Your task to perform on an android device: Go to privacy settings Image 0: 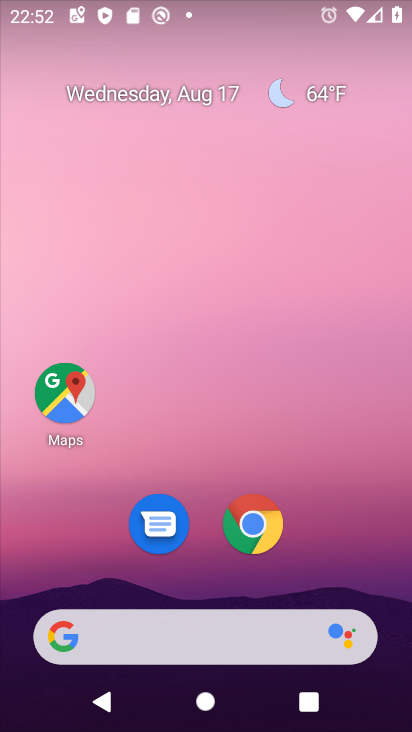
Step 0: drag from (319, 535) to (306, 8)
Your task to perform on an android device: Go to privacy settings Image 1: 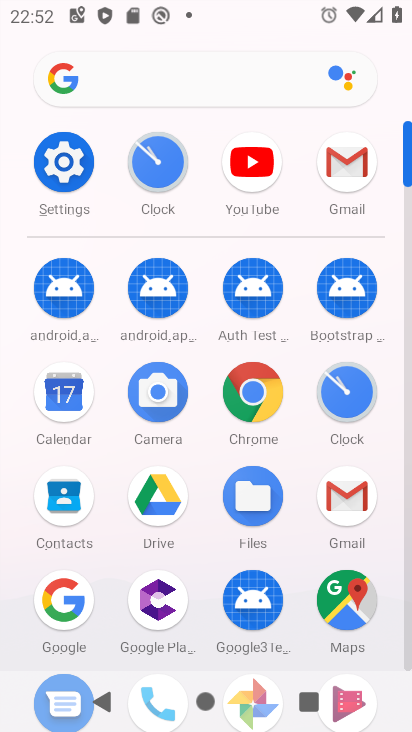
Step 1: click (54, 161)
Your task to perform on an android device: Go to privacy settings Image 2: 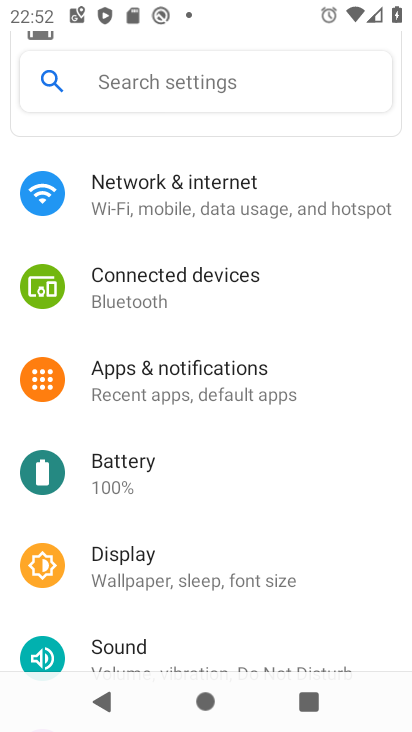
Step 2: drag from (234, 455) to (271, 129)
Your task to perform on an android device: Go to privacy settings Image 3: 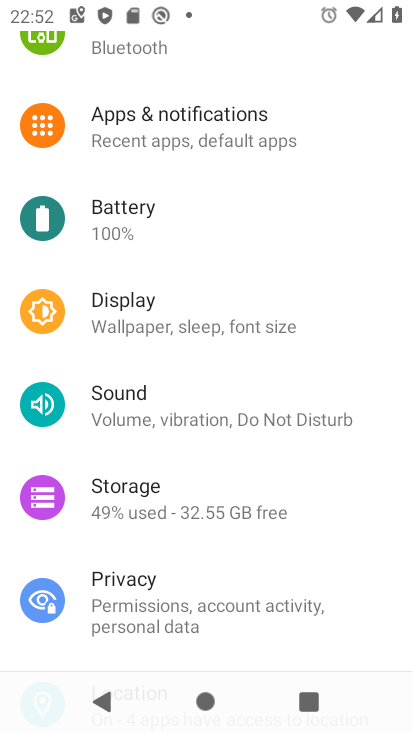
Step 3: click (169, 602)
Your task to perform on an android device: Go to privacy settings Image 4: 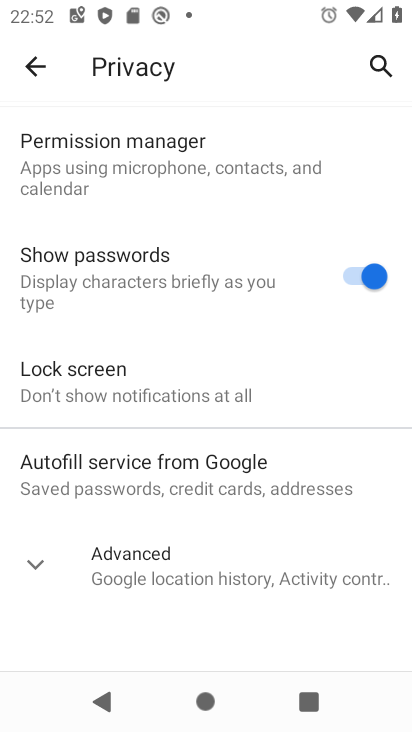
Step 4: task complete